Your task to perform on an android device: Is it going to rain today? Image 0: 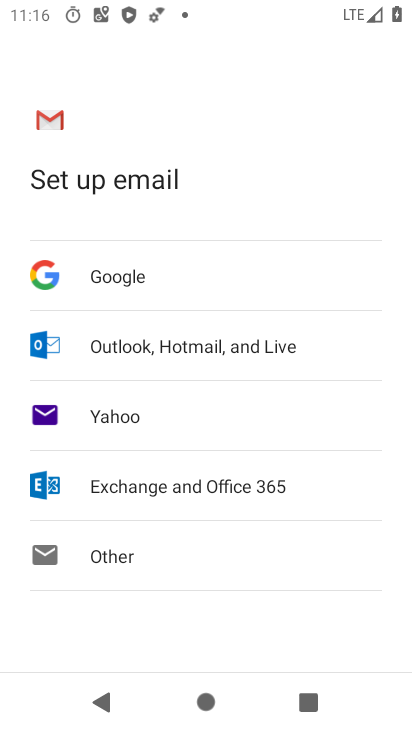
Step 0: press home button
Your task to perform on an android device: Is it going to rain today? Image 1: 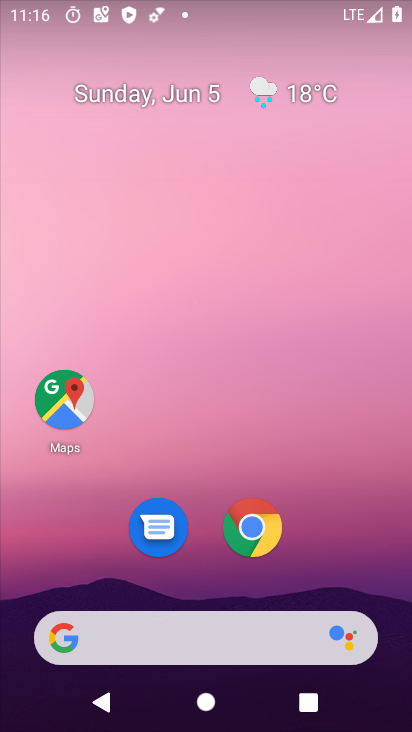
Step 1: drag from (340, 539) to (232, 33)
Your task to perform on an android device: Is it going to rain today? Image 2: 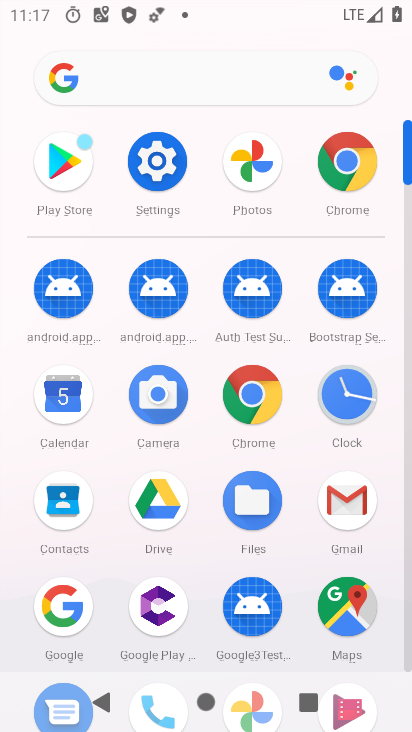
Step 2: click (59, 612)
Your task to perform on an android device: Is it going to rain today? Image 3: 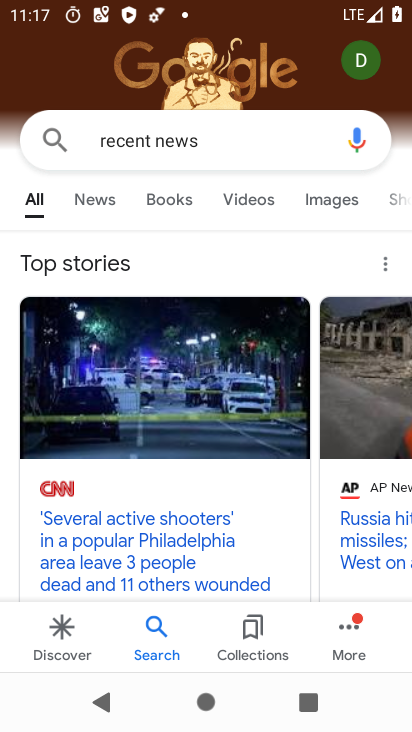
Step 3: click (226, 143)
Your task to perform on an android device: Is it going to rain today? Image 4: 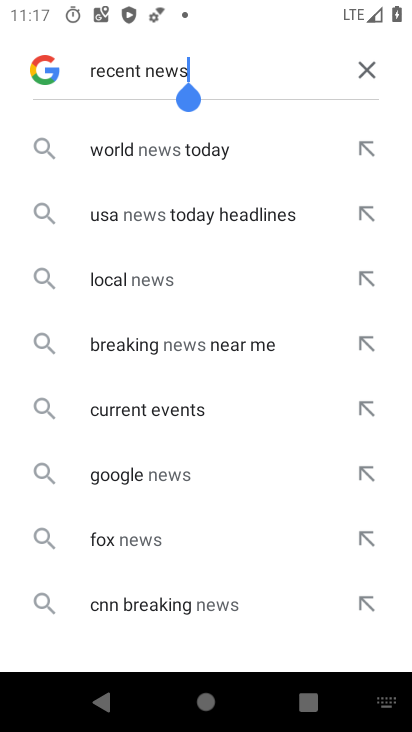
Step 4: click (369, 67)
Your task to perform on an android device: Is it going to rain today? Image 5: 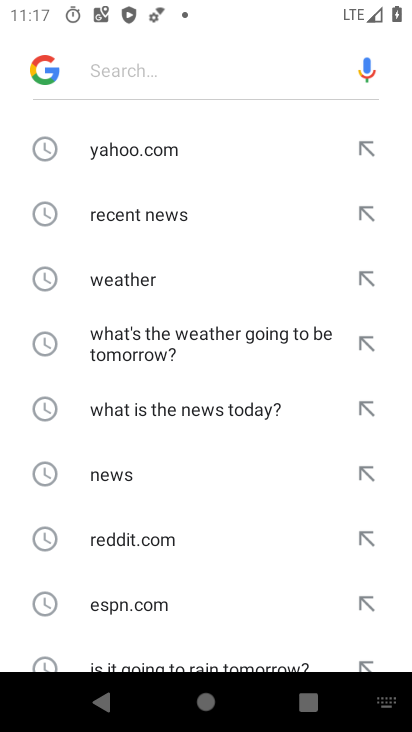
Step 5: click (167, 291)
Your task to perform on an android device: Is it going to rain today? Image 6: 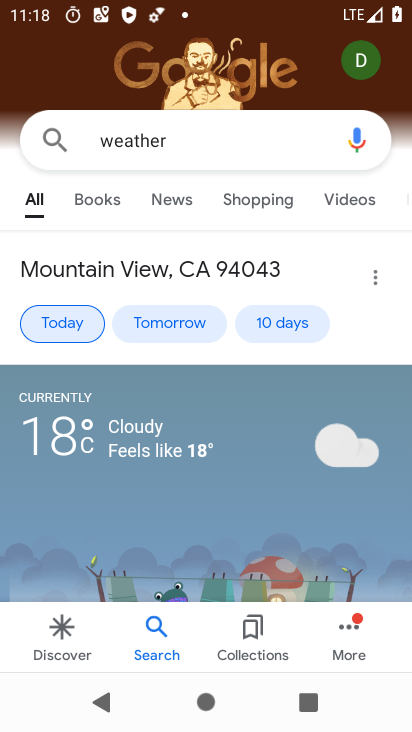
Step 6: task complete